Your task to perform on an android device: Open maps Image 0: 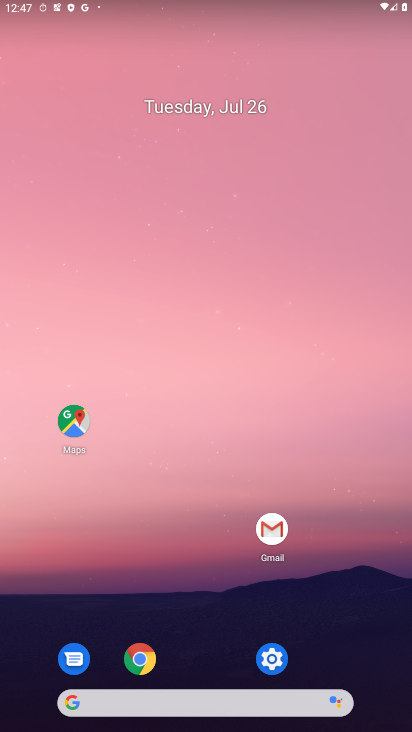
Step 0: click (70, 433)
Your task to perform on an android device: Open maps Image 1: 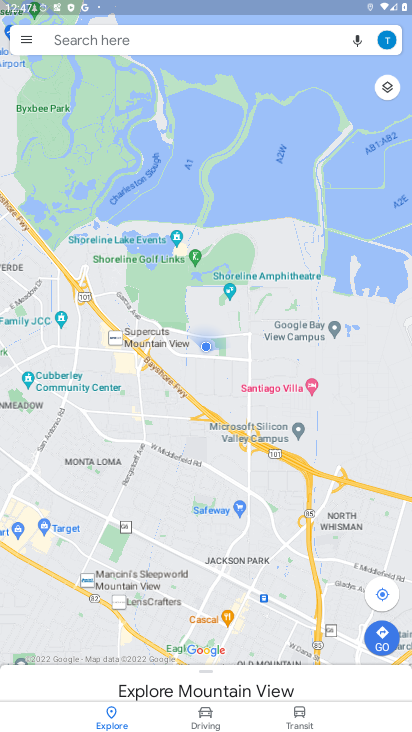
Step 1: click (385, 596)
Your task to perform on an android device: Open maps Image 2: 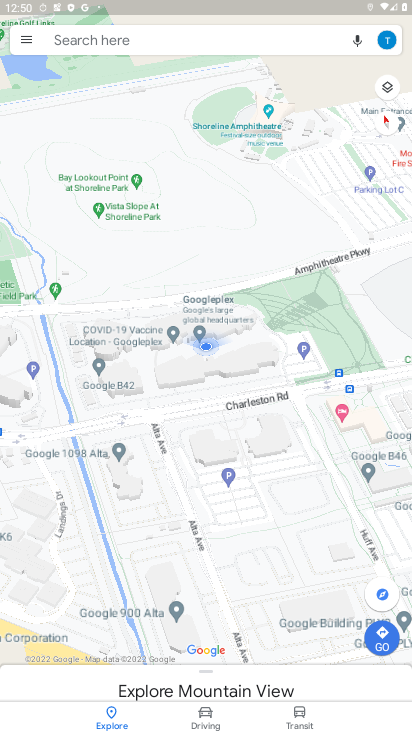
Step 2: task complete